Your task to perform on an android device: turn on notifications settings in the gmail app Image 0: 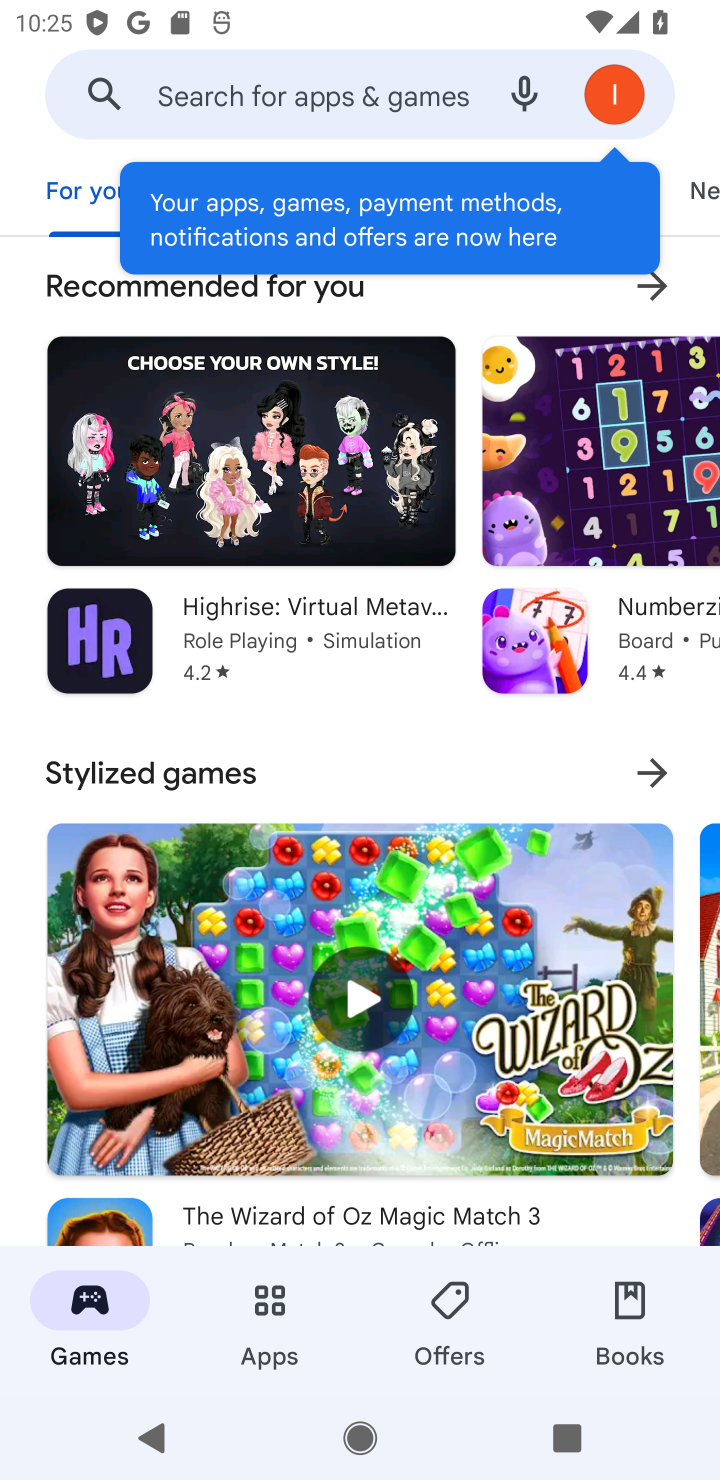
Step 0: press home button
Your task to perform on an android device: turn on notifications settings in the gmail app Image 1: 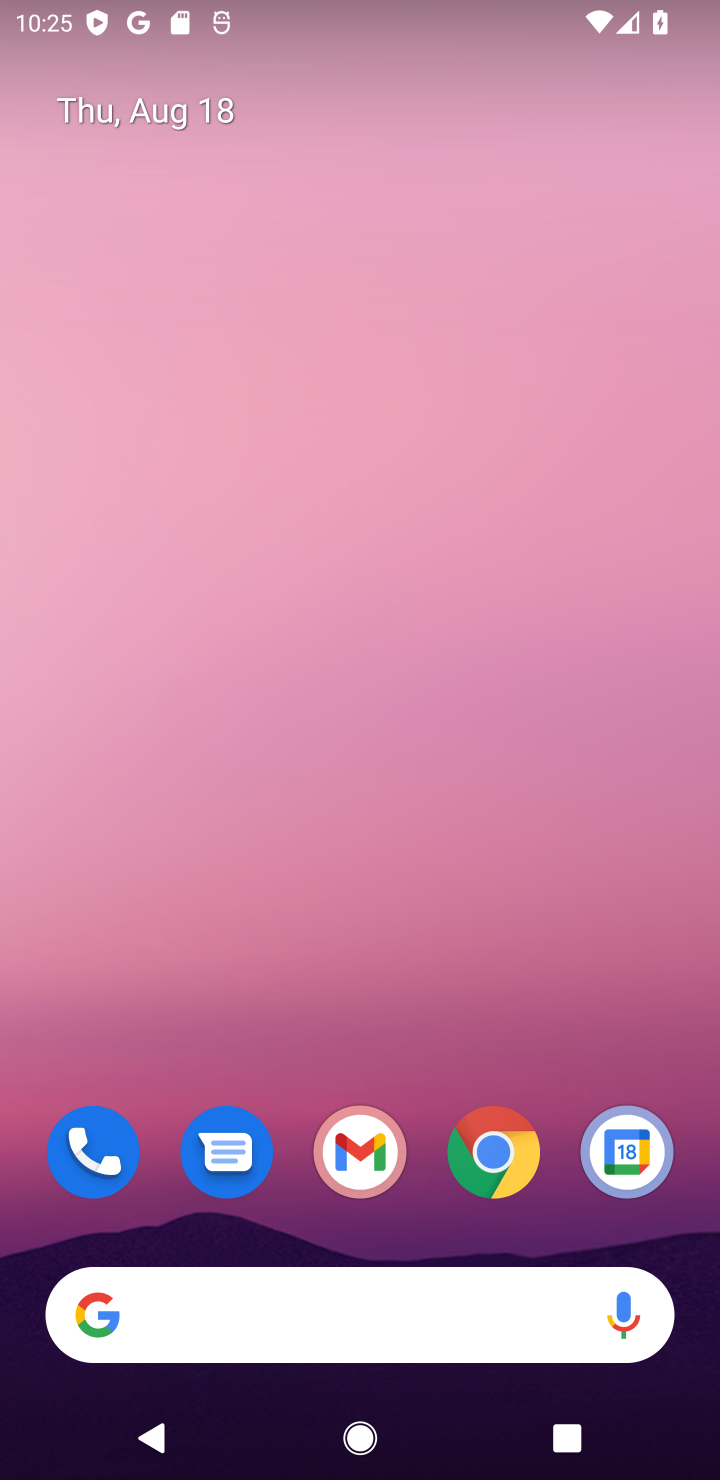
Step 1: click (368, 1147)
Your task to perform on an android device: turn on notifications settings in the gmail app Image 2: 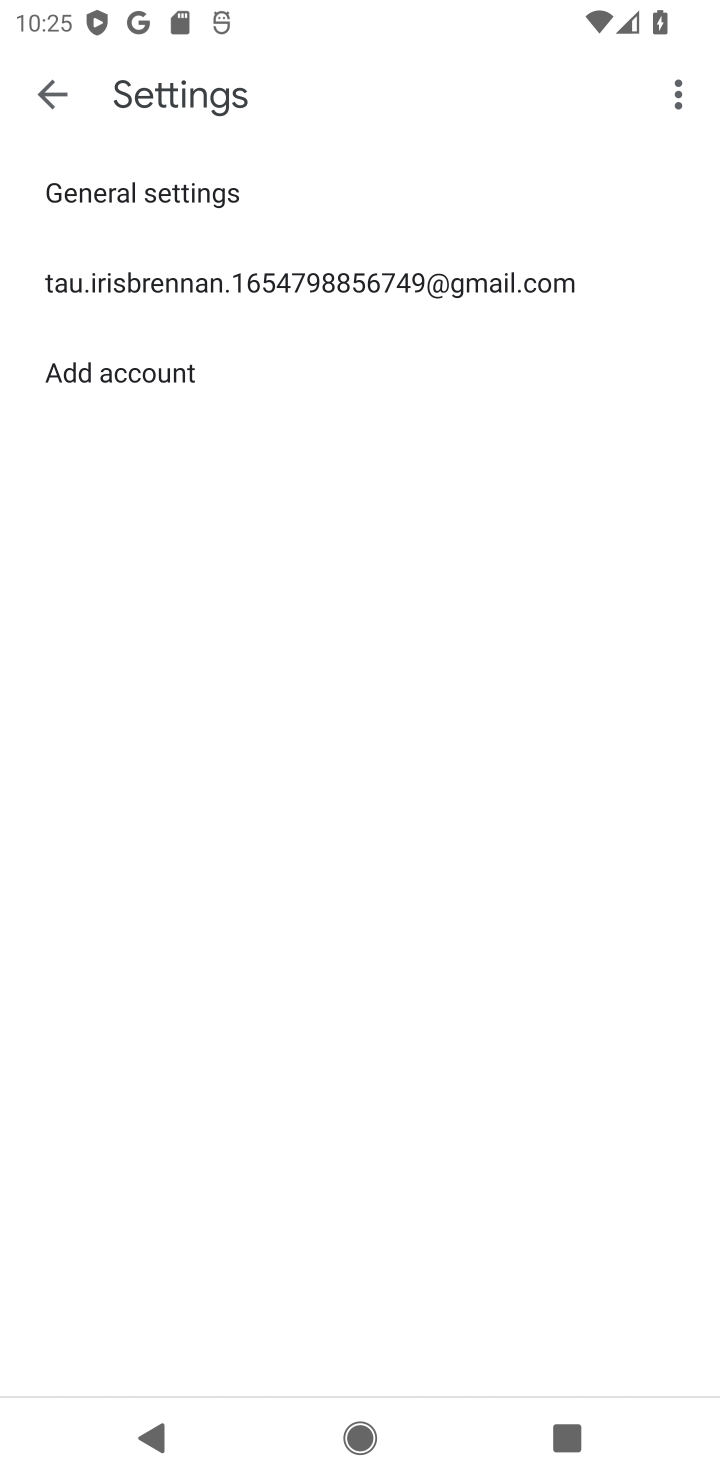
Step 2: click (457, 275)
Your task to perform on an android device: turn on notifications settings in the gmail app Image 3: 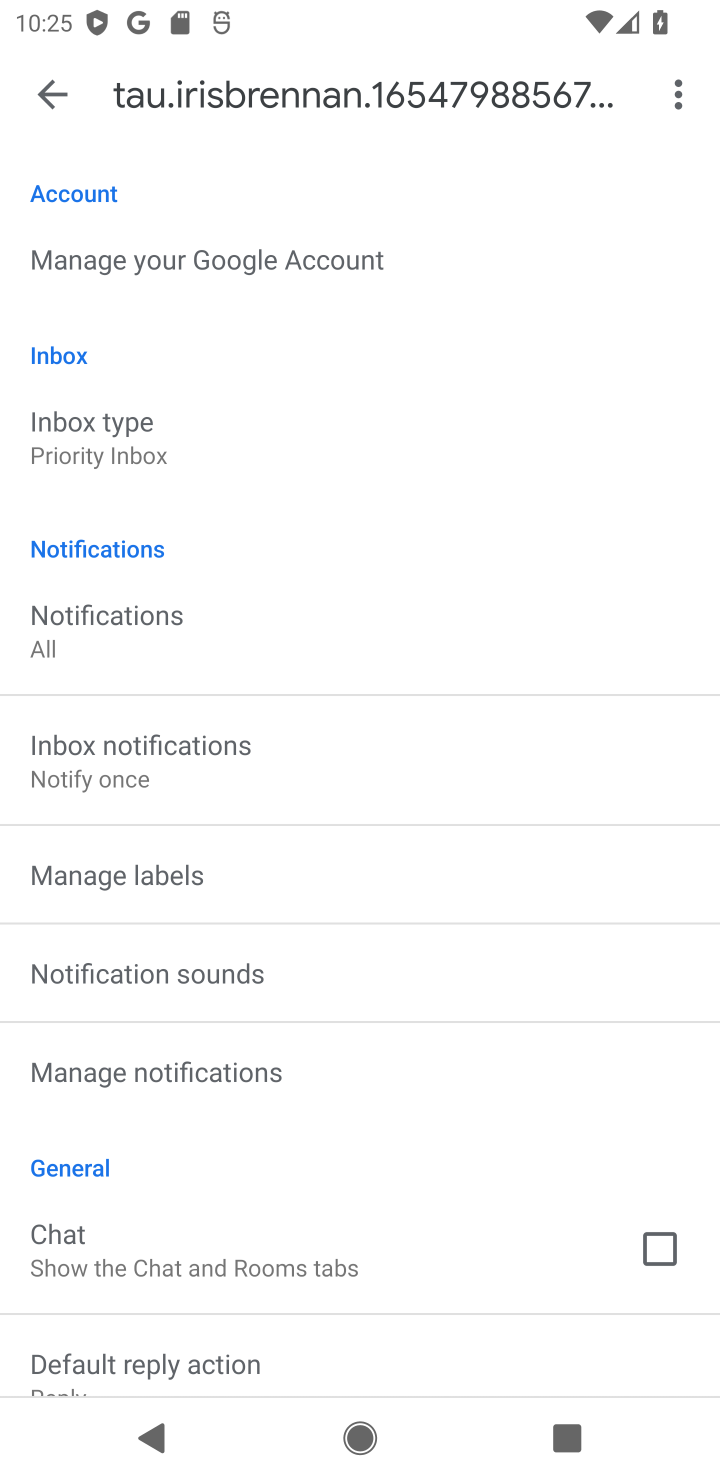
Step 3: click (281, 1069)
Your task to perform on an android device: turn on notifications settings in the gmail app Image 4: 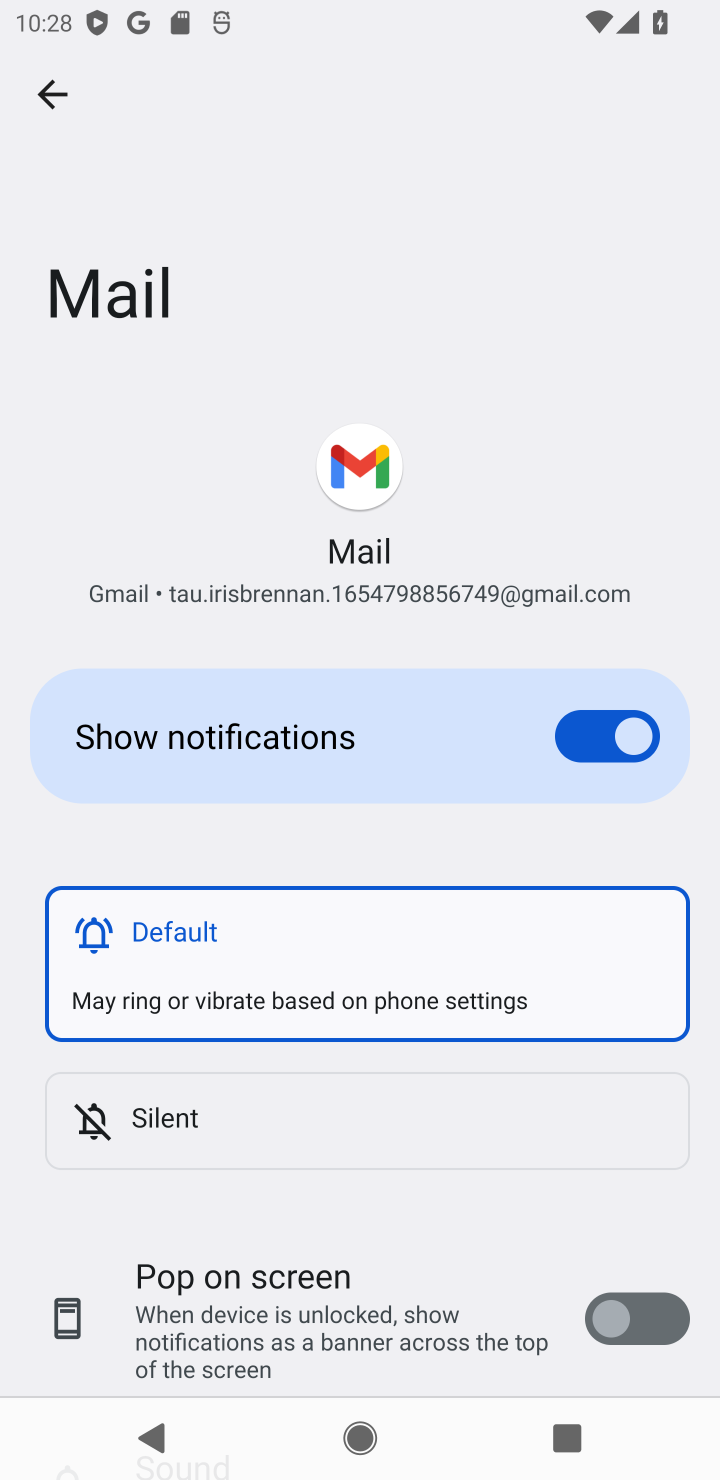
Step 4: task complete